Your task to perform on an android device: What's the weather going to be this weekend? Image 0: 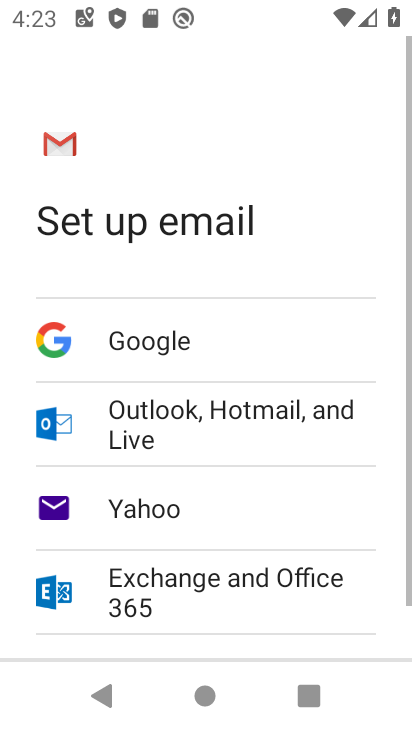
Step 0: press home button
Your task to perform on an android device: What's the weather going to be this weekend? Image 1: 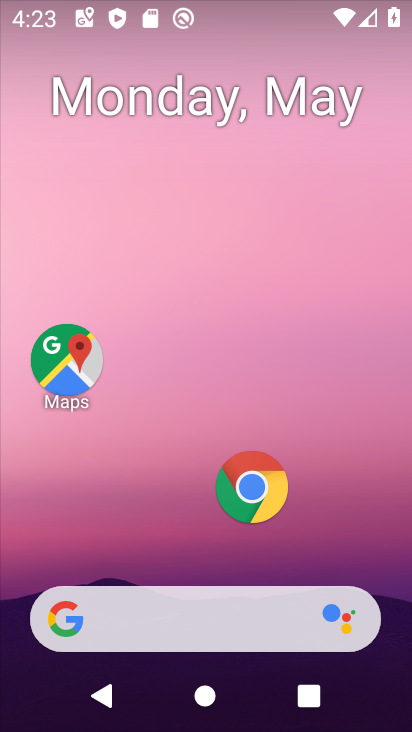
Step 1: drag from (157, 728) to (217, 0)
Your task to perform on an android device: What's the weather going to be this weekend? Image 2: 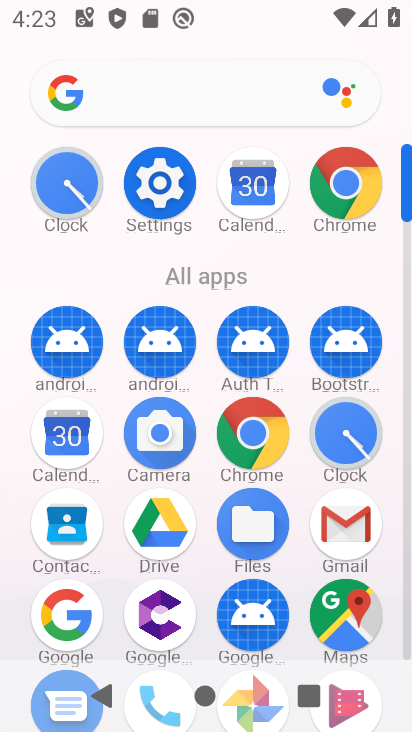
Step 2: click (218, 97)
Your task to perform on an android device: What's the weather going to be this weekend? Image 3: 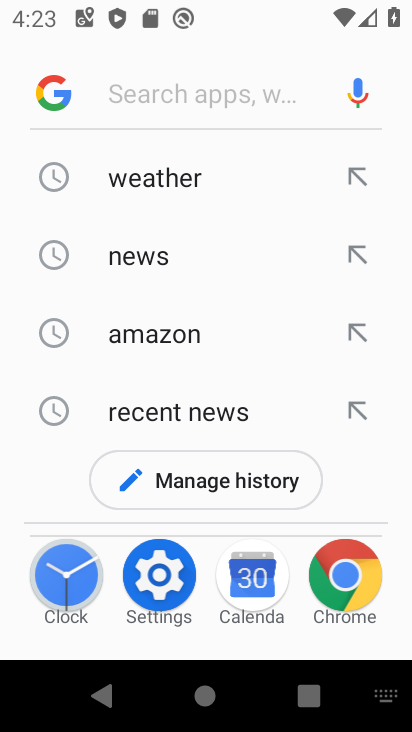
Step 3: click (165, 184)
Your task to perform on an android device: What's the weather going to be this weekend? Image 4: 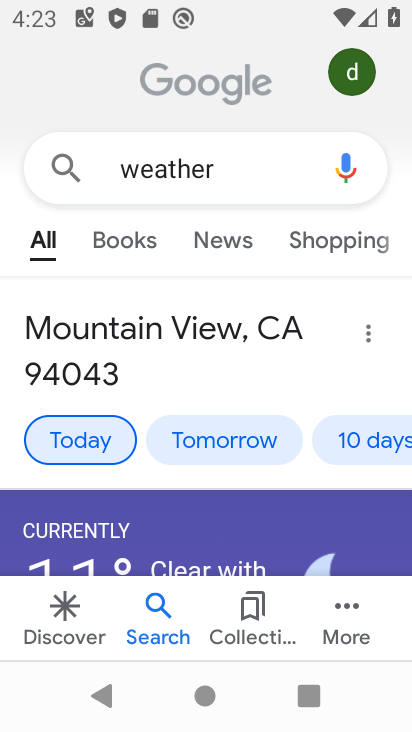
Step 4: click (364, 437)
Your task to perform on an android device: What's the weather going to be this weekend? Image 5: 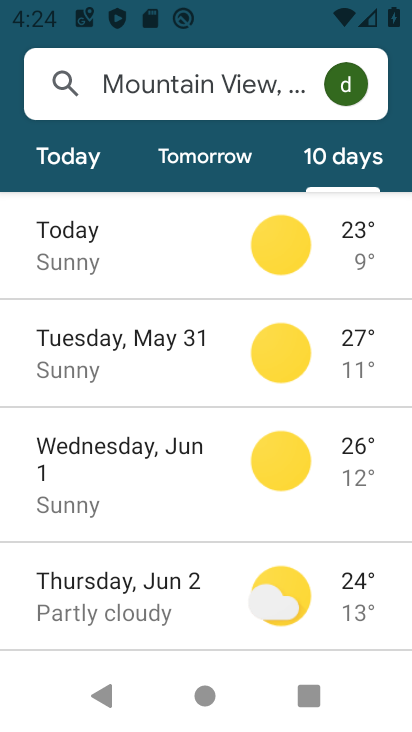
Step 5: task complete